Your task to perform on an android device: Open the stopwatch Image 0: 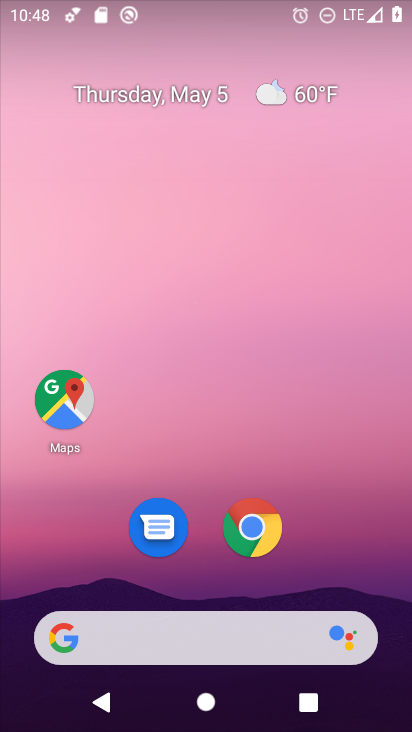
Step 0: drag from (256, 708) to (296, 94)
Your task to perform on an android device: Open the stopwatch Image 1: 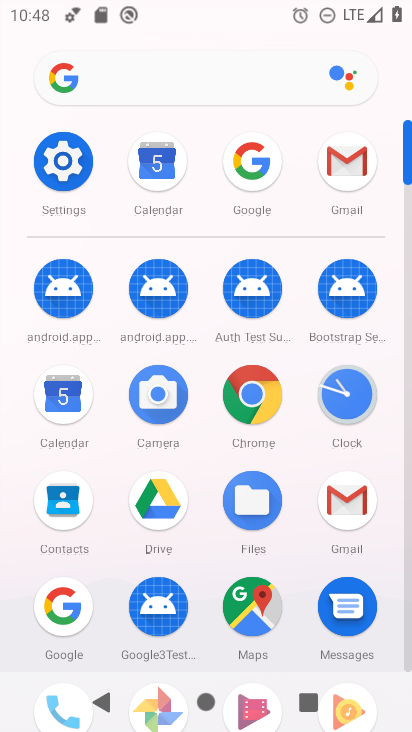
Step 1: click (356, 410)
Your task to perform on an android device: Open the stopwatch Image 2: 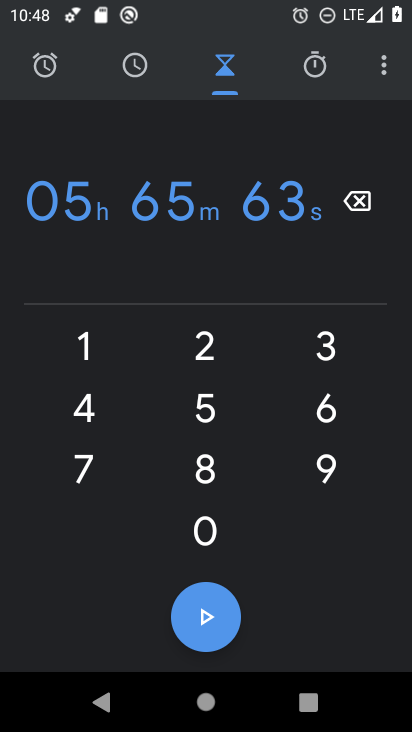
Step 2: click (317, 72)
Your task to perform on an android device: Open the stopwatch Image 3: 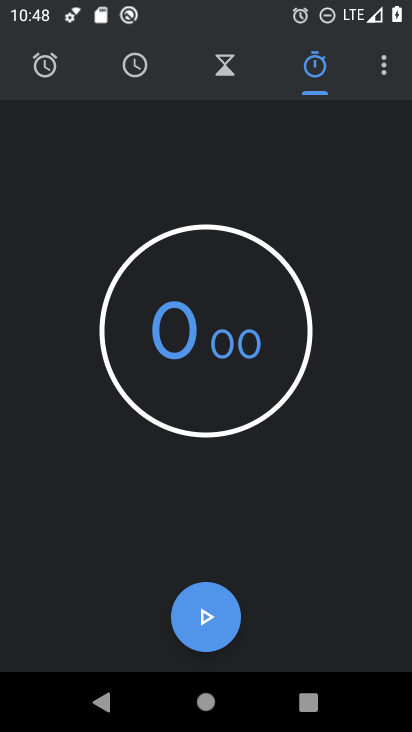
Step 3: task complete